Your task to perform on an android device: Go to calendar. Show me events next week Image 0: 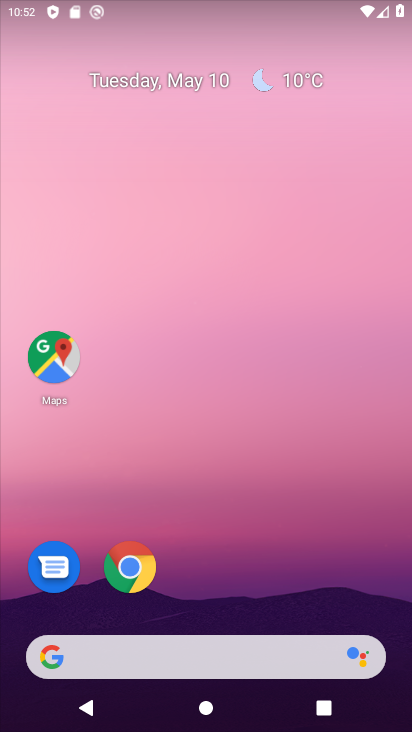
Step 0: drag from (294, 628) to (272, 7)
Your task to perform on an android device: Go to calendar. Show me events next week Image 1: 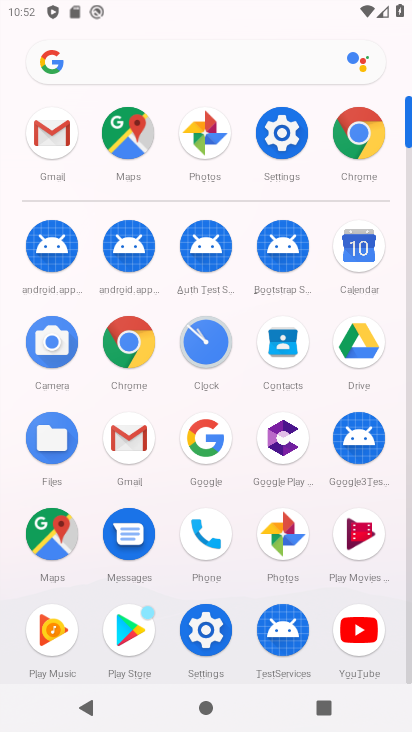
Step 1: drag from (201, 583) to (266, 229)
Your task to perform on an android device: Go to calendar. Show me events next week Image 2: 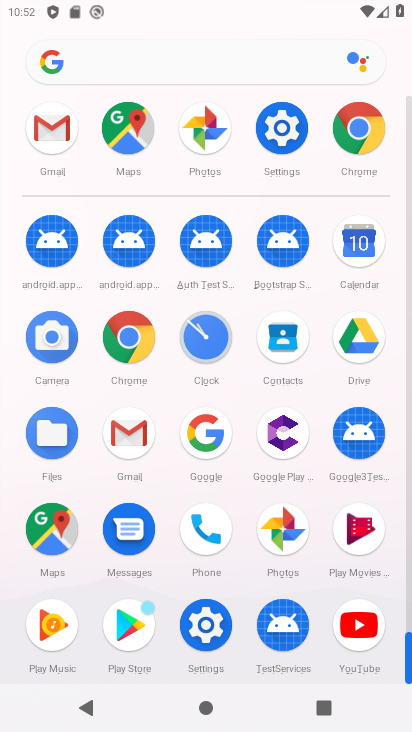
Step 2: click (368, 238)
Your task to perform on an android device: Go to calendar. Show me events next week Image 3: 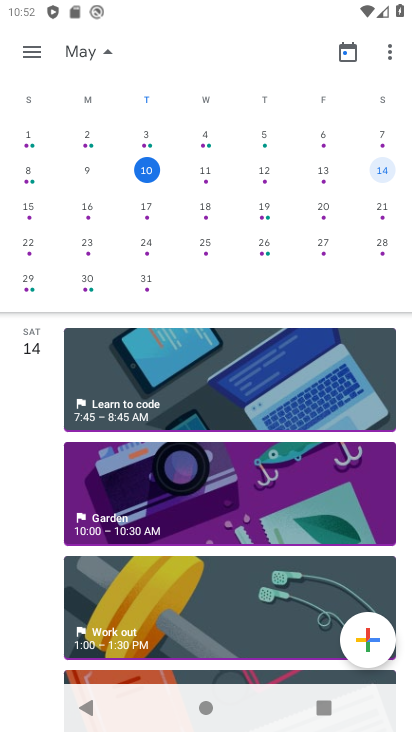
Step 3: drag from (352, 215) to (111, 221)
Your task to perform on an android device: Go to calendar. Show me events next week Image 4: 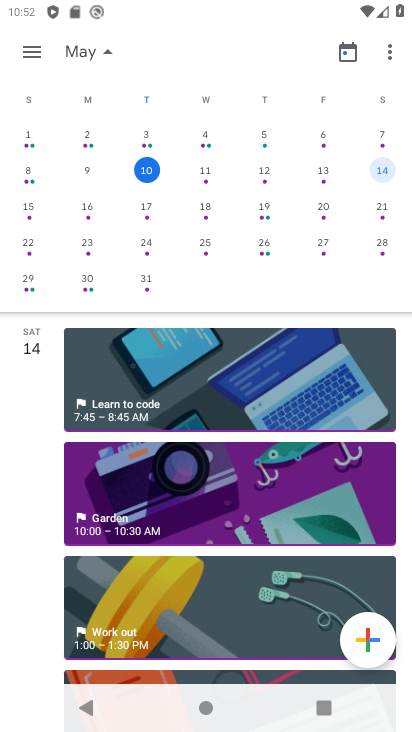
Step 4: click (264, 215)
Your task to perform on an android device: Go to calendar. Show me events next week Image 5: 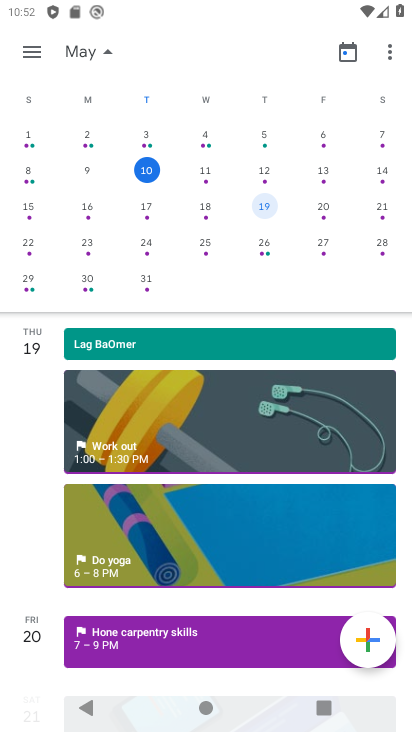
Step 5: click (29, 50)
Your task to perform on an android device: Go to calendar. Show me events next week Image 6: 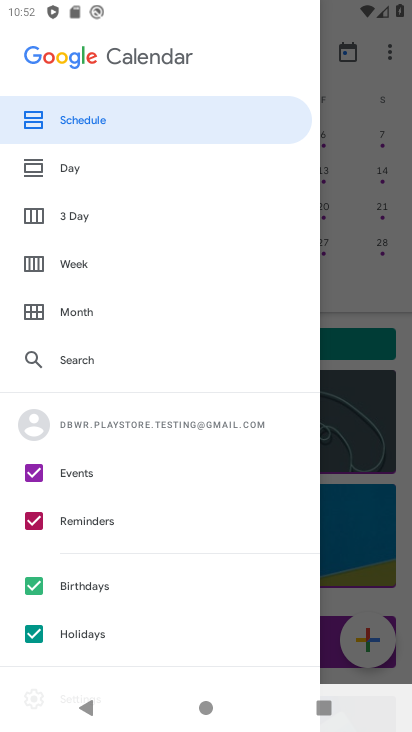
Step 6: click (68, 256)
Your task to perform on an android device: Go to calendar. Show me events next week Image 7: 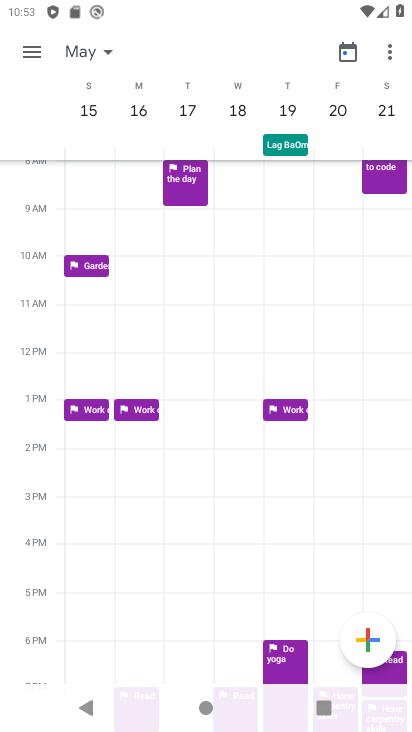
Step 7: task complete